Your task to perform on an android device: Open Google Chrome and click the shortcut for Amazon.com Image 0: 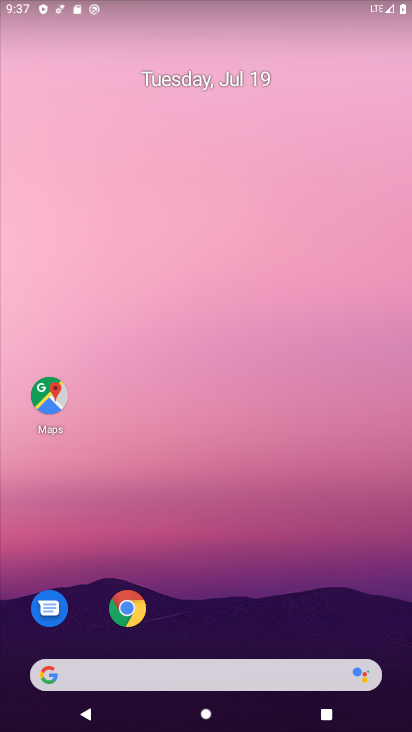
Step 0: click (133, 602)
Your task to perform on an android device: Open Google Chrome and click the shortcut for Amazon.com Image 1: 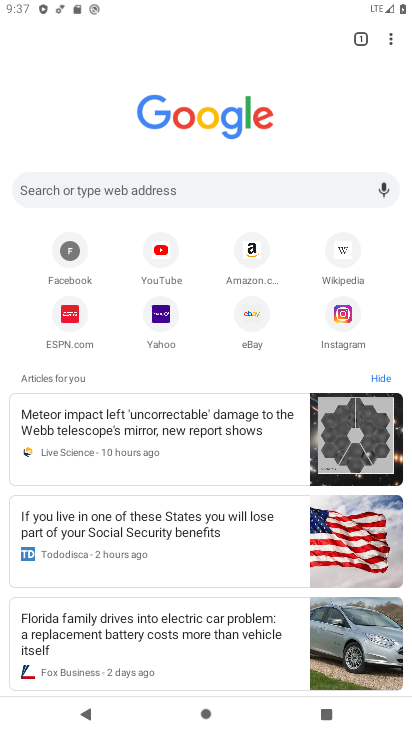
Step 1: click (260, 241)
Your task to perform on an android device: Open Google Chrome and click the shortcut for Amazon.com Image 2: 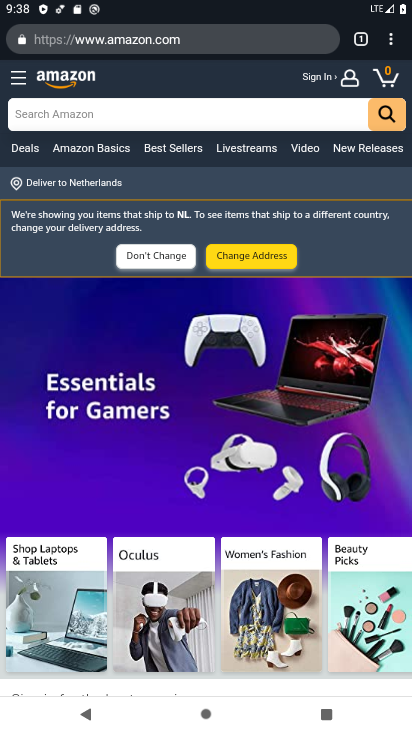
Step 2: task complete